Your task to perform on an android device: make emails show in primary in the gmail app Image 0: 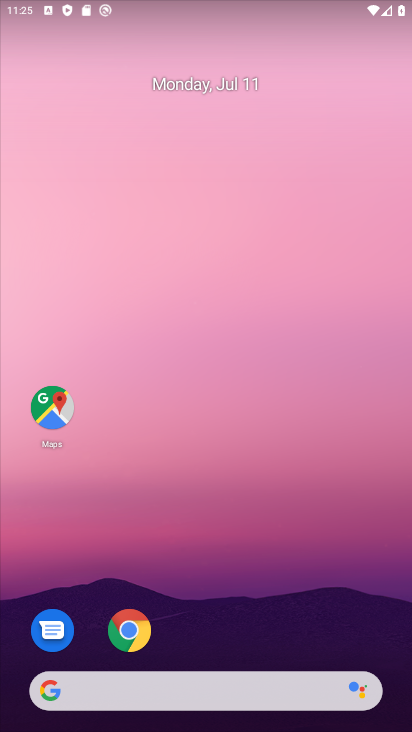
Step 0: drag from (333, 597) to (277, 133)
Your task to perform on an android device: make emails show in primary in the gmail app Image 1: 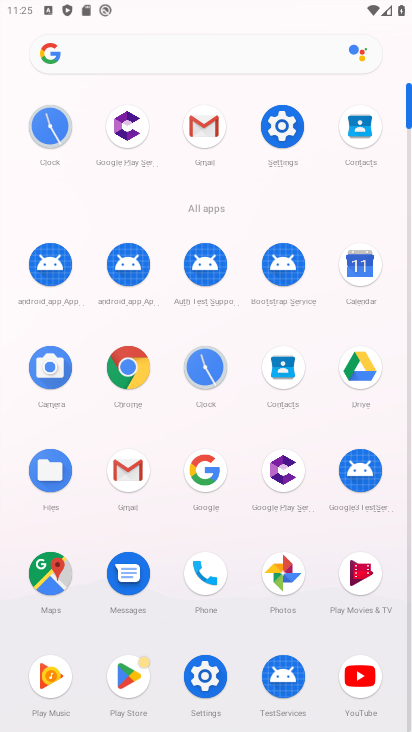
Step 1: click (128, 469)
Your task to perform on an android device: make emails show in primary in the gmail app Image 2: 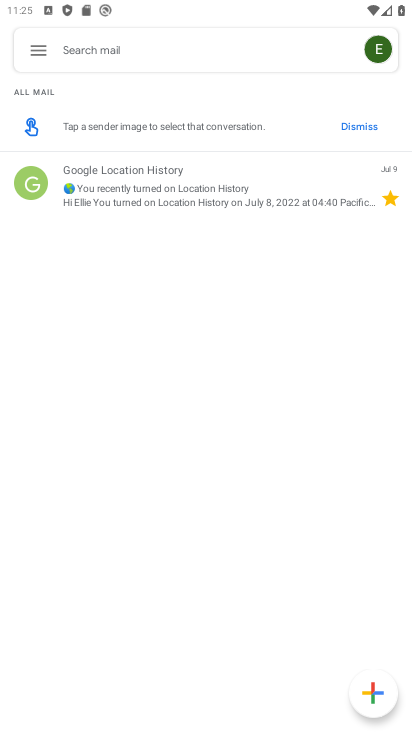
Step 2: click (35, 47)
Your task to perform on an android device: make emails show in primary in the gmail app Image 3: 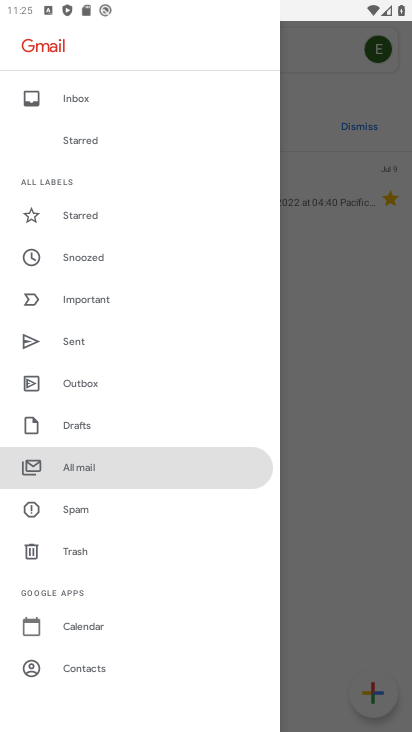
Step 3: drag from (153, 622) to (155, 236)
Your task to perform on an android device: make emails show in primary in the gmail app Image 4: 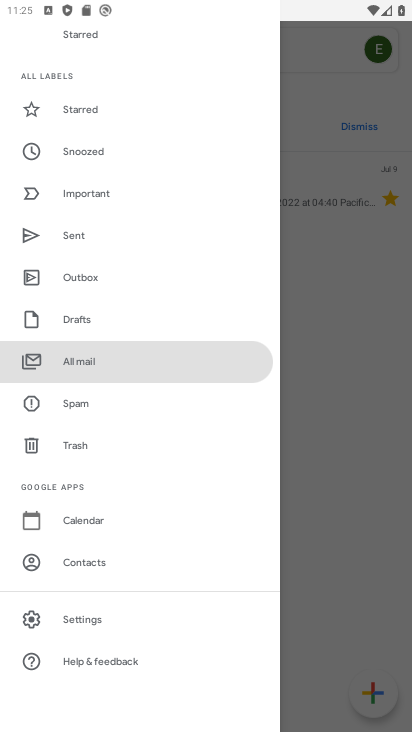
Step 4: click (79, 605)
Your task to perform on an android device: make emails show in primary in the gmail app Image 5: 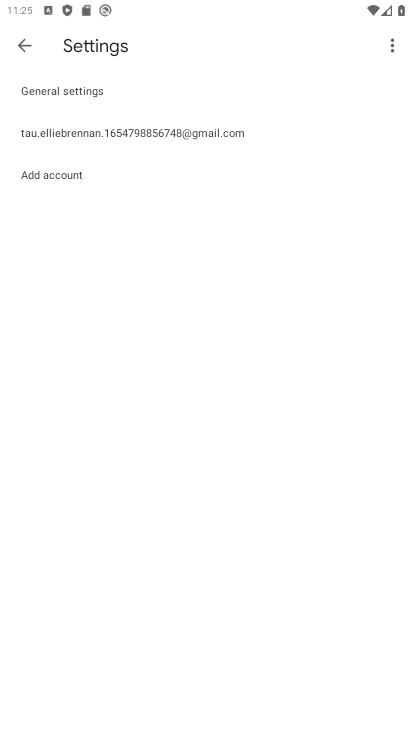
Step 5: click (105, 128)
Your task to perform on an android device: make emails show in primary in the gmail app Image 6: 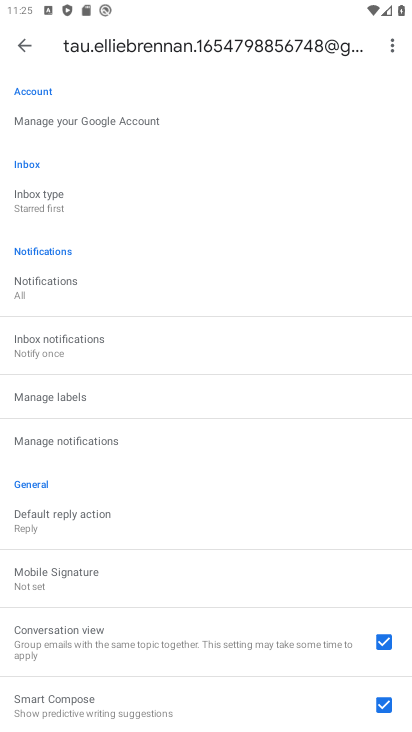
Step 6: click (43, 200)
Your task to perform on an android device: make emails show in primary in the gmail app Image 7: 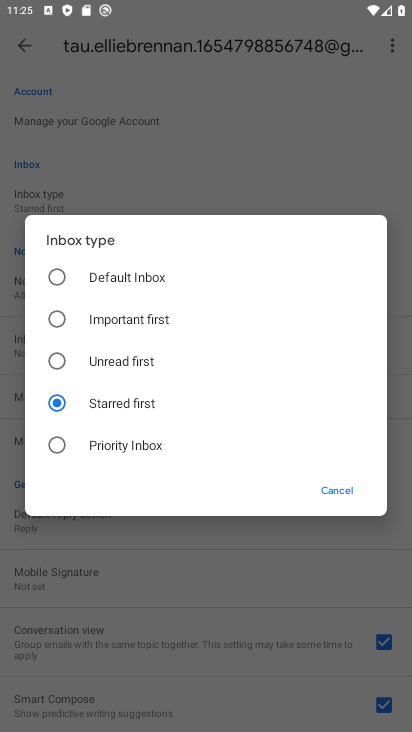
Step 7: click (60, 281)
Your task to perform on an android device: make emails show in primary in the gmail app Image 8: 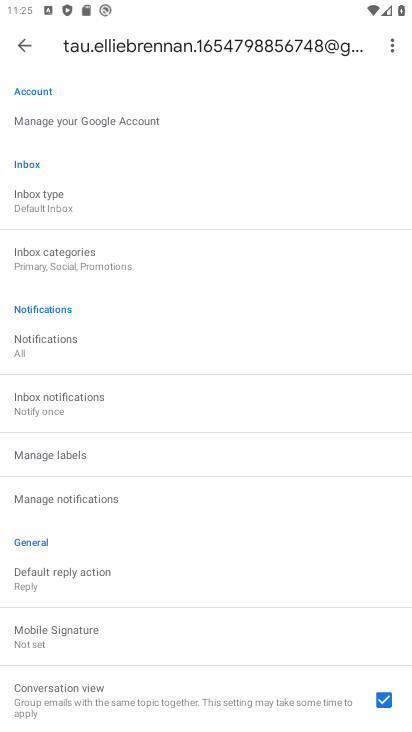
Step 8: click (53, 262)
Your task to perform on an android device: make emails show in primary in the gmail app Image 9: 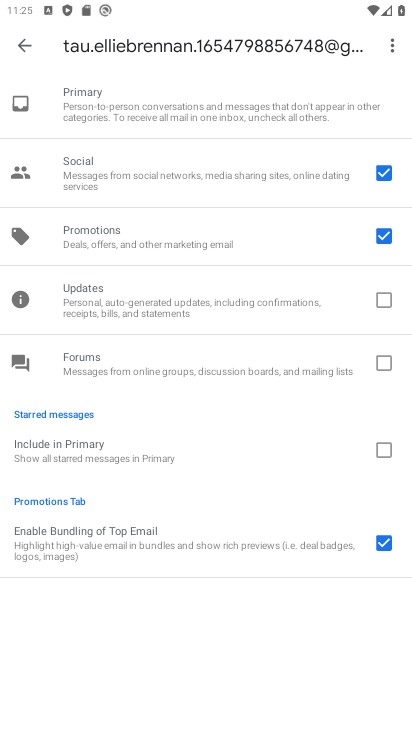
Step 9: click (377, 231)
Your task to perform on an android device: make emails show in primary in the gmail app Image 10: 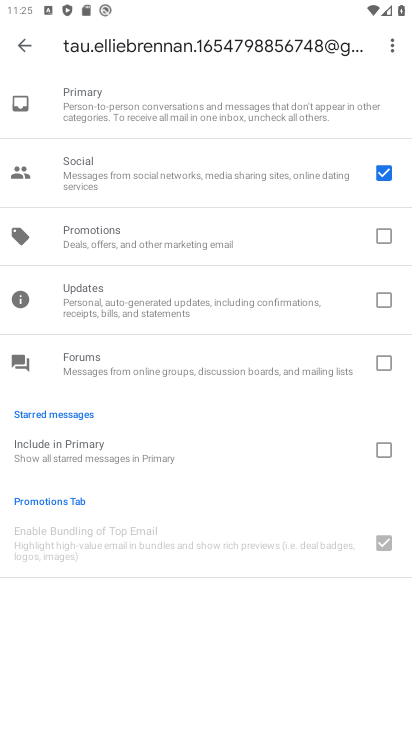
Step 10: click (380, 175)
Your task to perform on an android device: make emails show in primary in the gmail app Image 11: 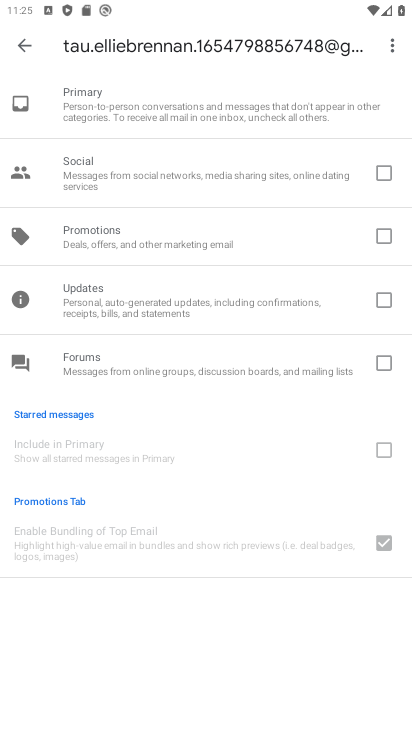
Step 11: task complete